Your task to perform on an android device: open app "Google Keep" (install if not already installed) Image 0: 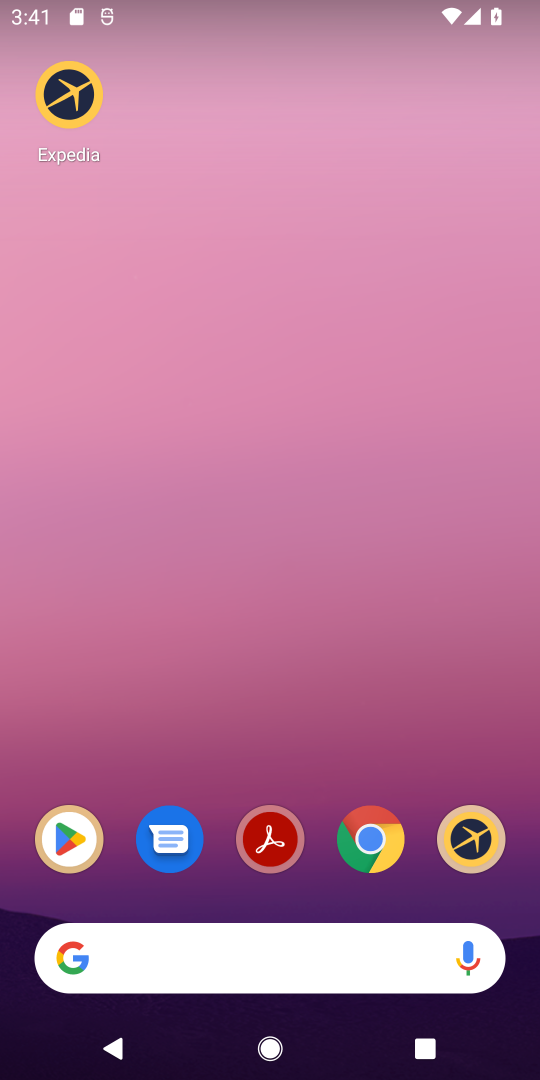
Step 0: click (58, 832)
Your task to perform on an android device: open app "Google Keep" (install if not already installed) Image 1: 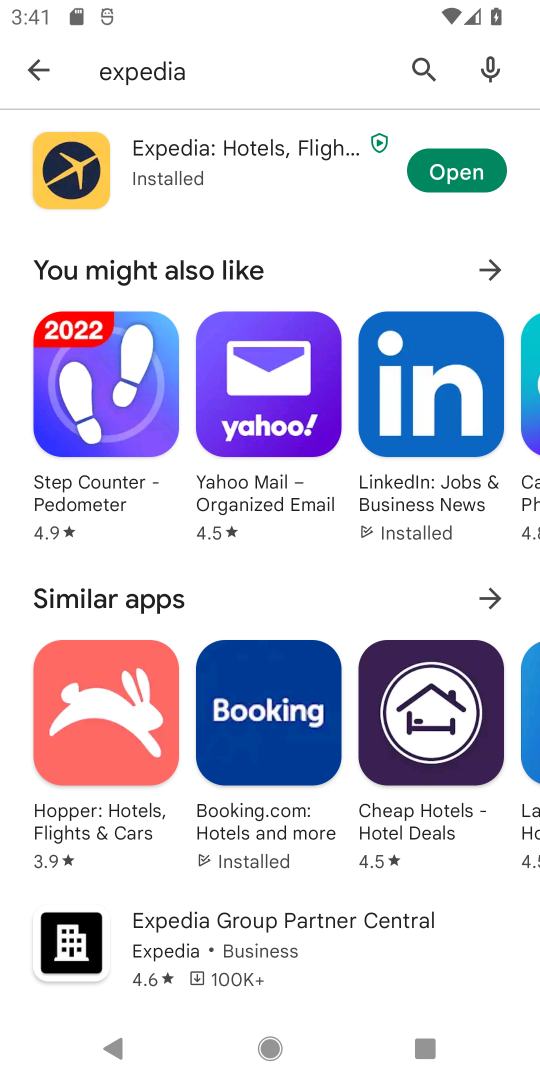
Step 1: click (393, 84)
Your task to perform on an android device: open app "Google Keep" (install if not already installed) Image 2: 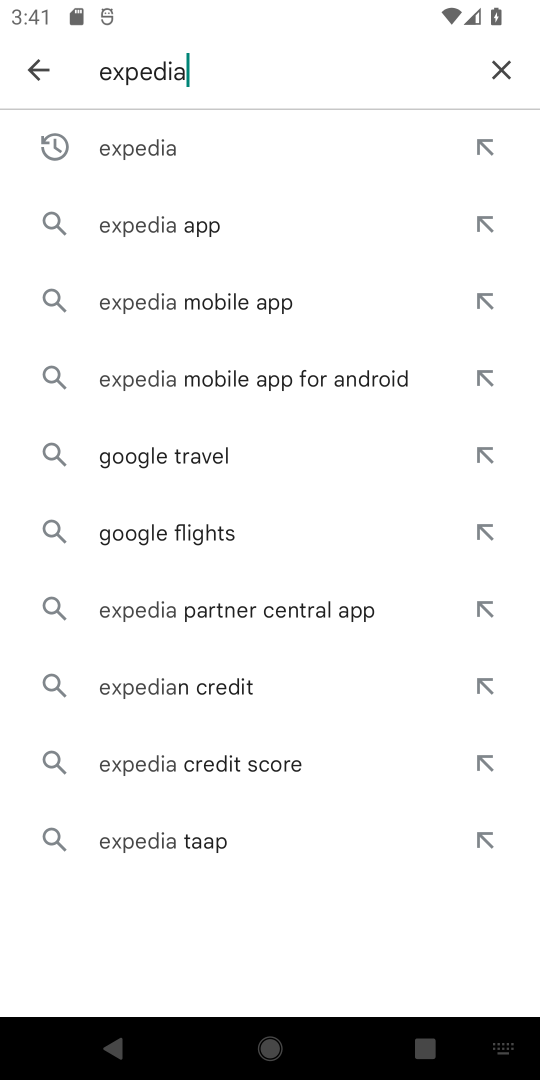
Step 2: click (491, 78)
Your task to perform on an android device: open app "Google Keep" (install if not already installed) Image 3: 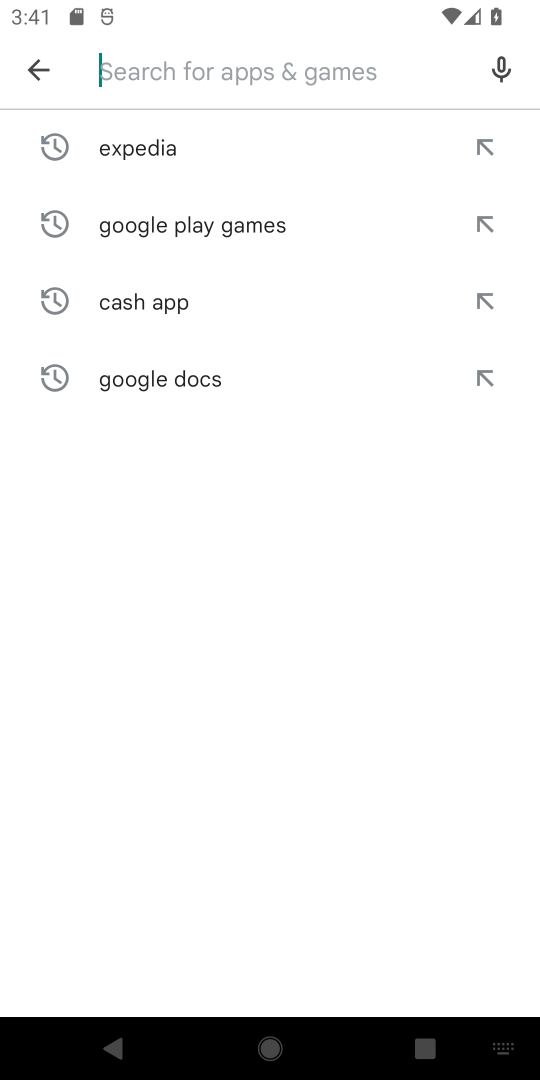
Step 3: type "google keep"
Your task to perform on an android device: open app "Google Keep" (install if not already installed) Image 4: 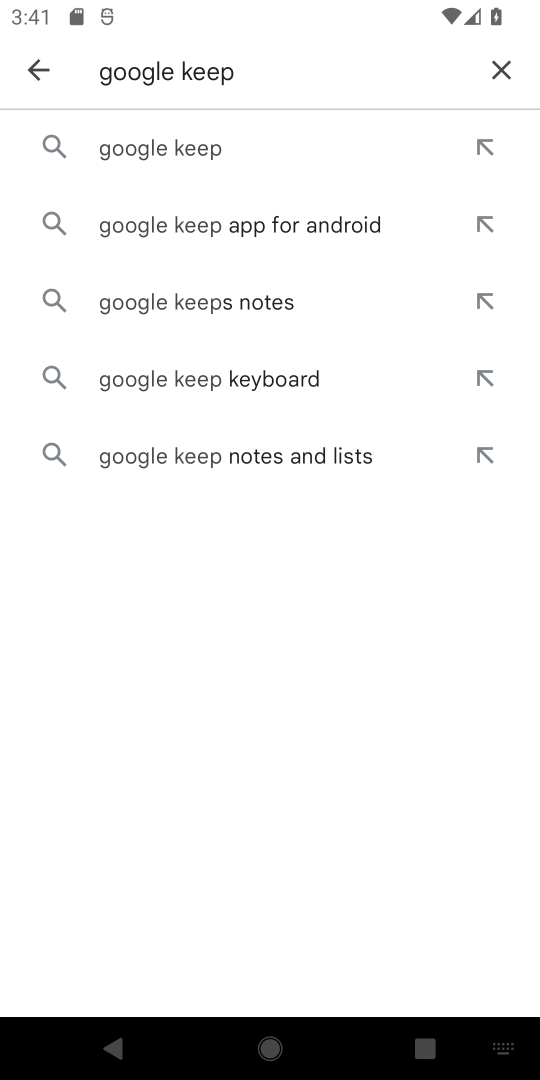
Step 4: click (239, 160)
Your task to perform on an android device: open app "Google Keep" (install if not already installed) Image 5: 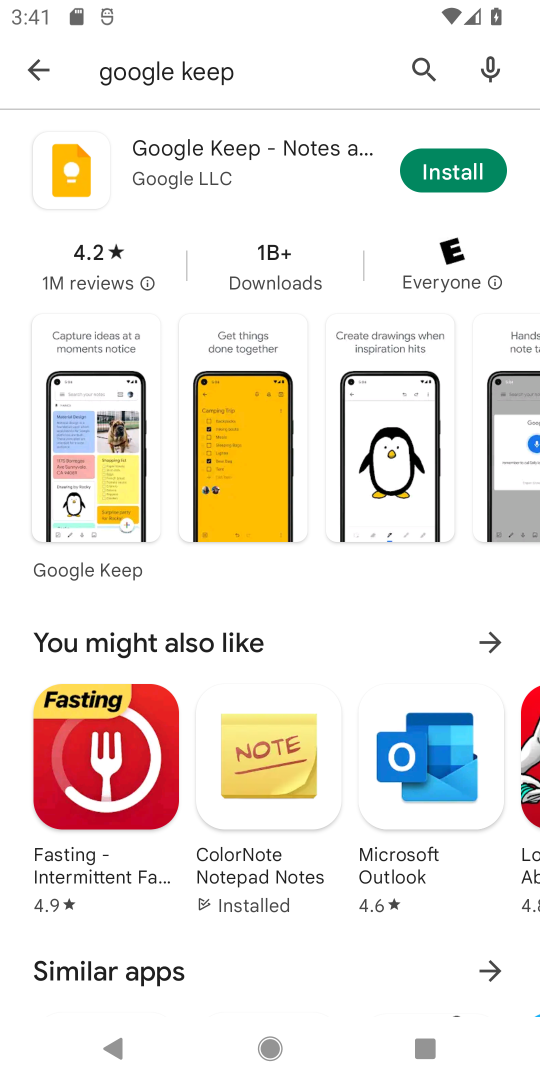
Step 5: click (440, 175)
Your task to perform on an android device: open app "Google Keep" (install if not already installed) Image 6: 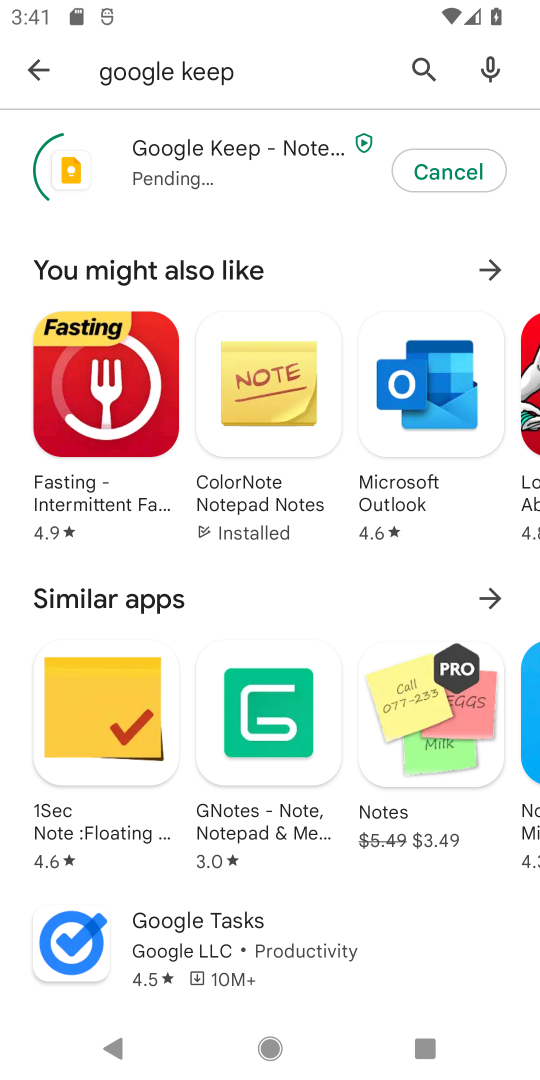
Step 6: task complete